Your task to perform on an android device: turn on wifi Image 0: 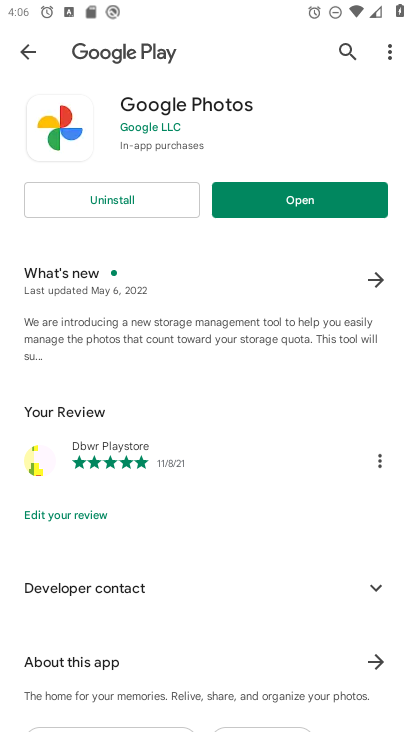
Step 0: press home button
Your task to perform on an android device: turn on wifi Image 1: 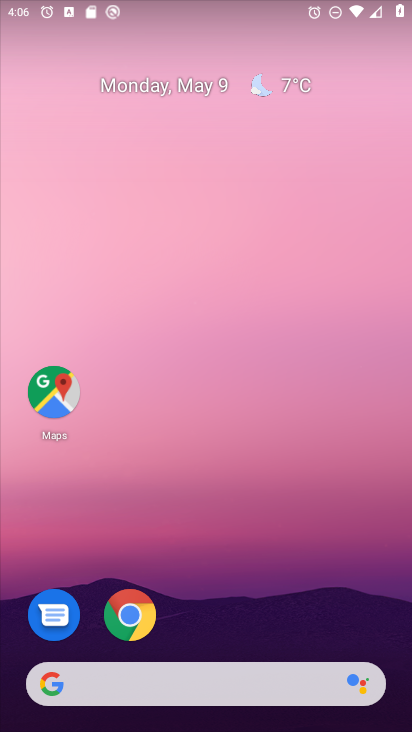
Step 1: drag from (376, 629) to (312, 170)
Your task to perform on an android device: turn on wifi Image 2: 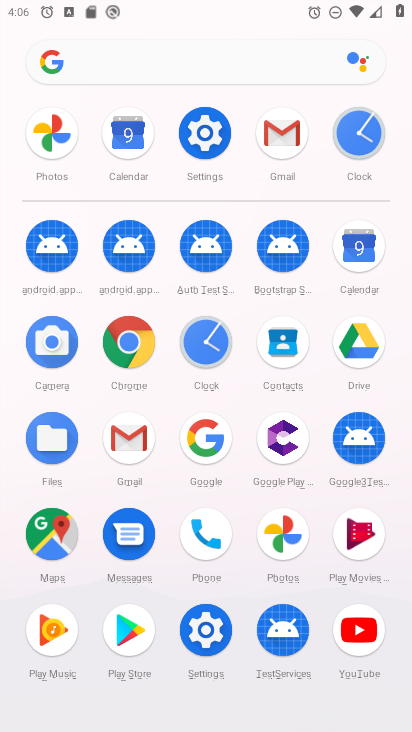
Step 2: click (205, 631)
Your task to perform on an android device: turn on wifi Image 3: 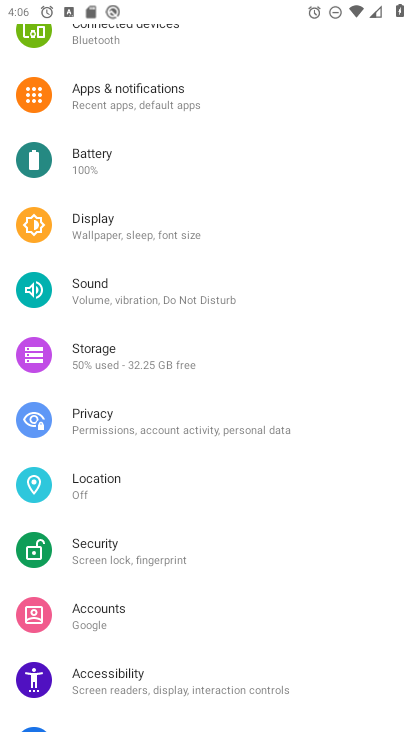
Step 3: drag from (328, 277) to (287, 517)
Your task to perform on an android device: turn on wifi Image 4: 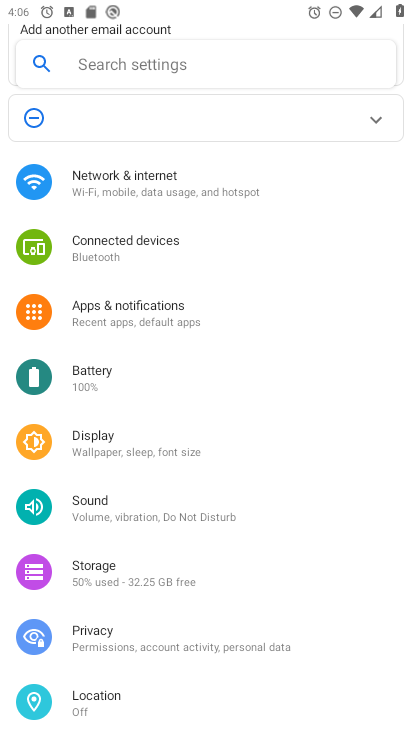
Step 4: click (107, 180)
Your task to perform on an android device: turn on wifi Image 5: 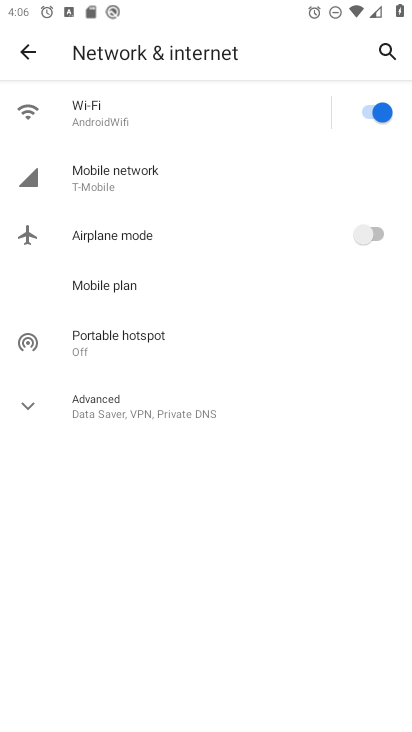
Step 5: task complete